Your task to perform on an android device: visit the assistant section in the google photos Image 0: 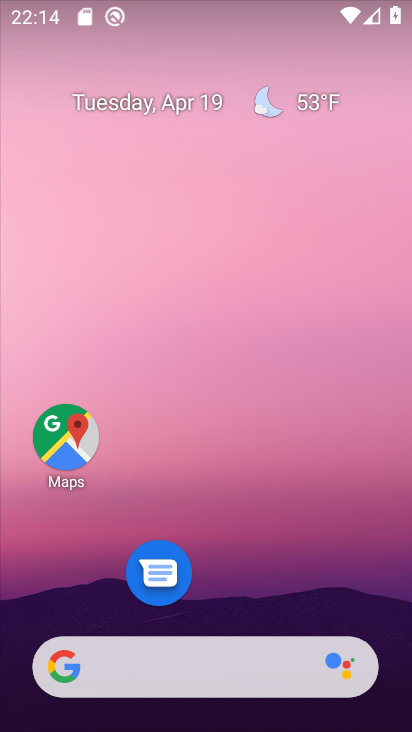
Step 0: drag from (233, 580) to (229, 78)
Your task to perform on an android device: visit the assistant section in the google photos Image 1: 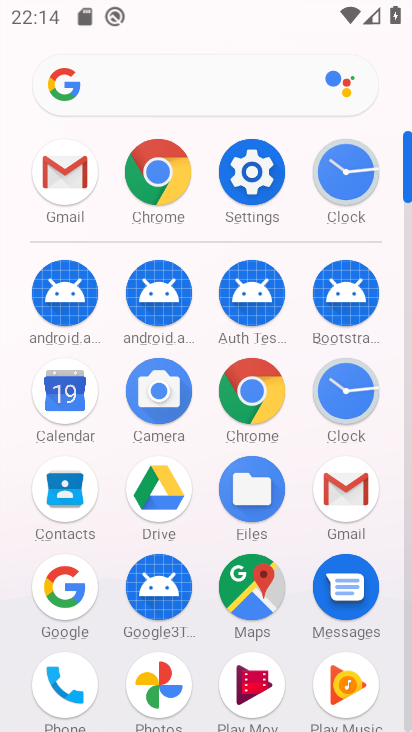
Step 1: click (160, 669)
Your task to perform on an android device: visit the assistant section in the google photos Image 2: 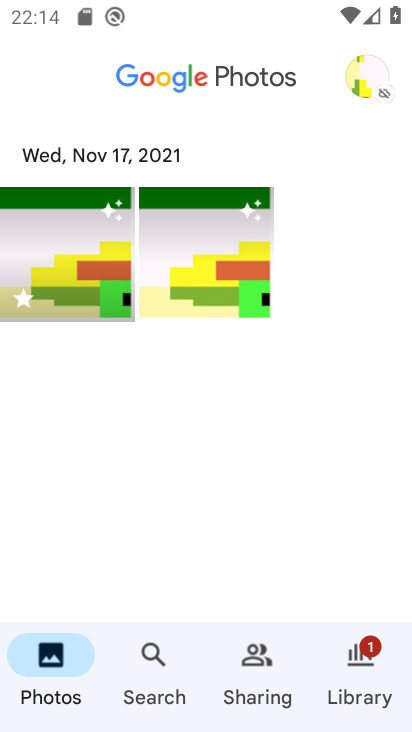
Step 2: click (150, 668)
Your task to perform on an android device: visit the assistant section in the google photos Image 3: 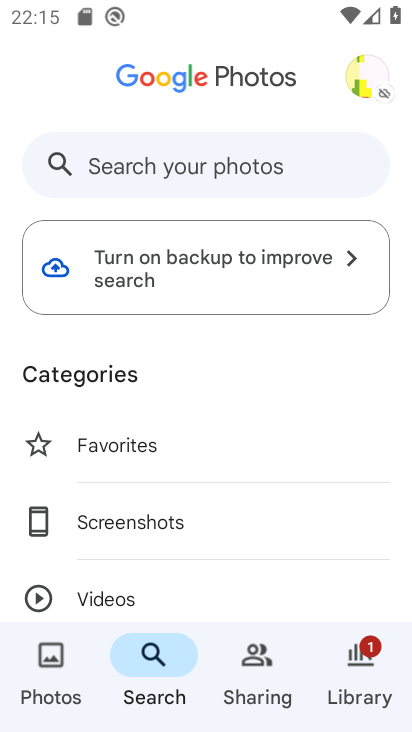
Step 3: click (135, 160)
Your task to perform on an android device: visit the assistant section in the google photos Image 4: 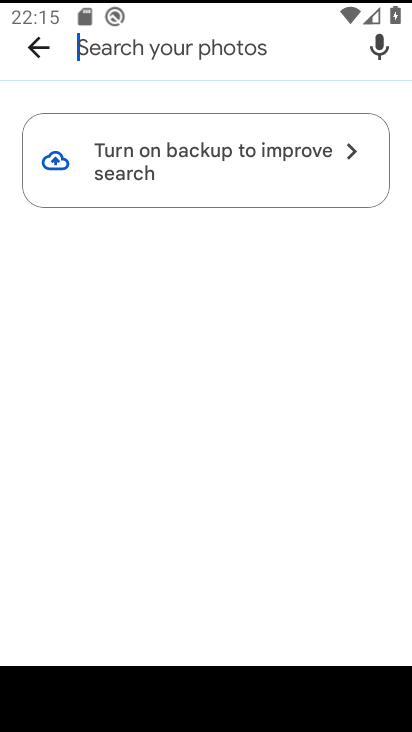
Step 4: type "assistance"
Your task to perform on an android device: visit the assistant section in the google photos Image 5: 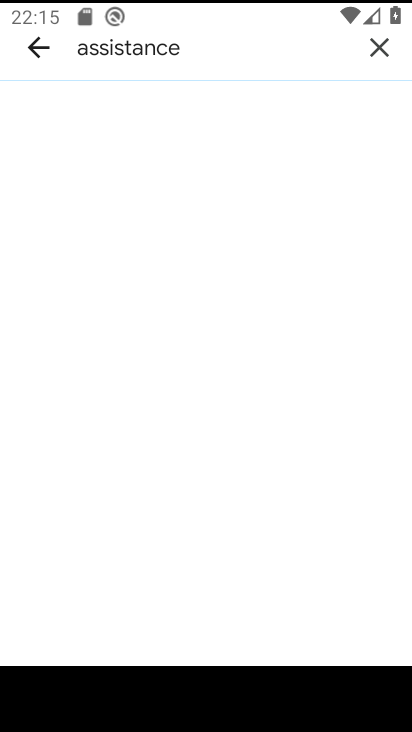
Step 5: click (368, 52)
Your task to perform on an android device: visit the assistant section in the google photos Image 6: 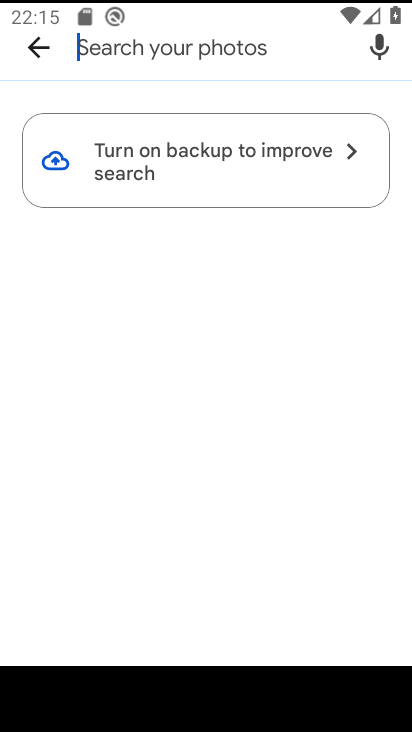
Step 6: type "assistant"
Your task to perform on an android device: visit the assistant section in the google photos Image 7: 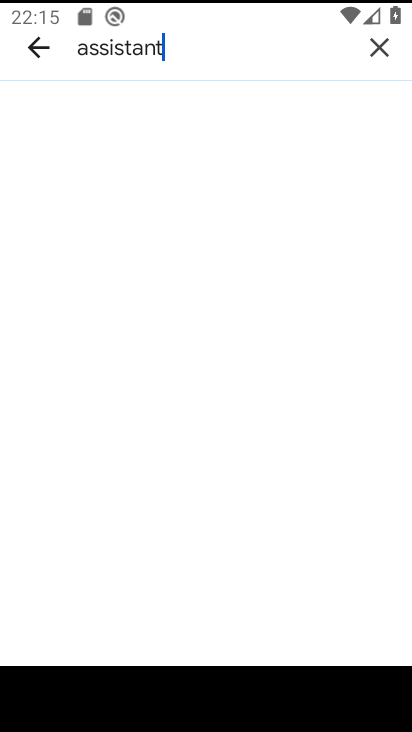
Step 7: task complete